Your task to perform on an android device: Empty the shopping cart on target.com. Image 0: 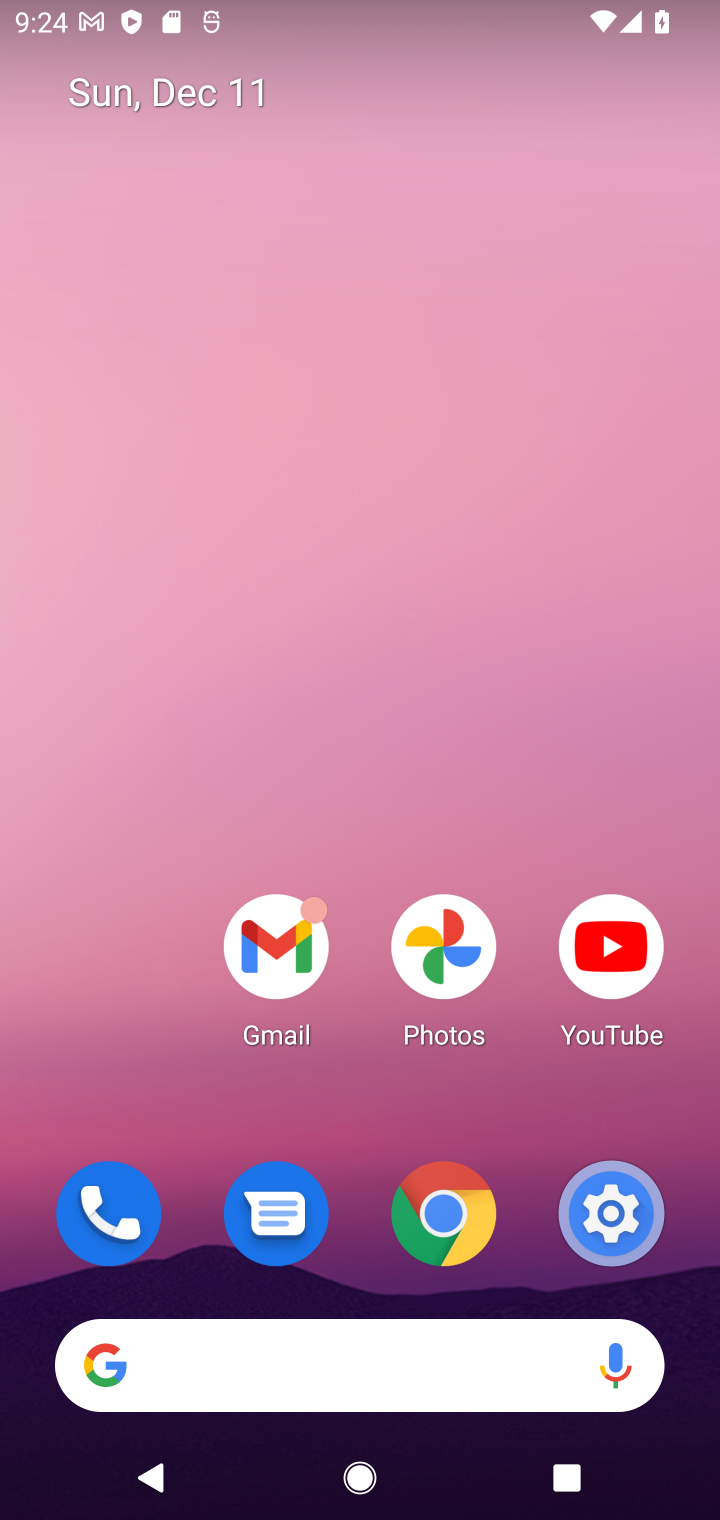
Step 0: click (462, 1347)
Your task to perform on an android device: Empty the shopping cart on target.com. Image 1: 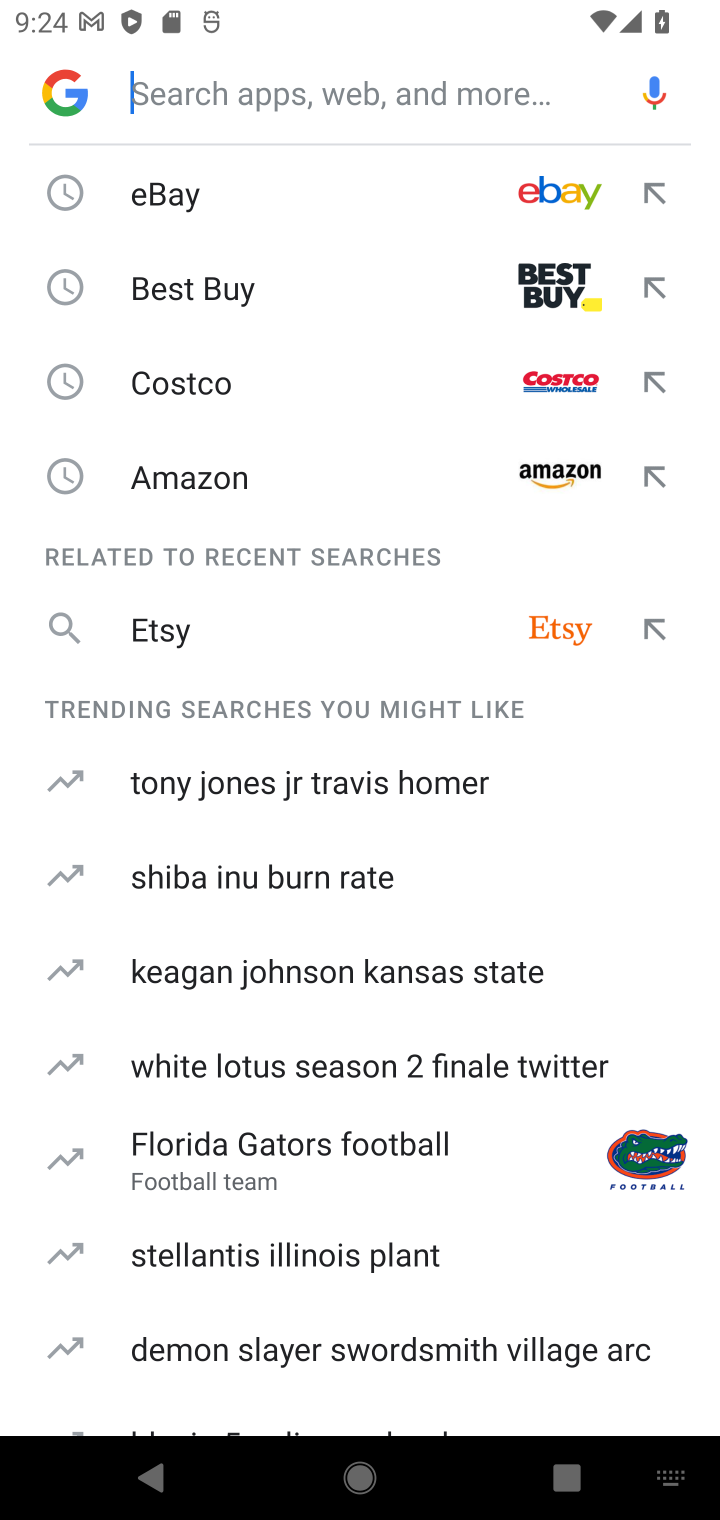
Step 1: type "target\"
Your task to perform on an android device: Empty the shopping cart on target.com. Image 2: 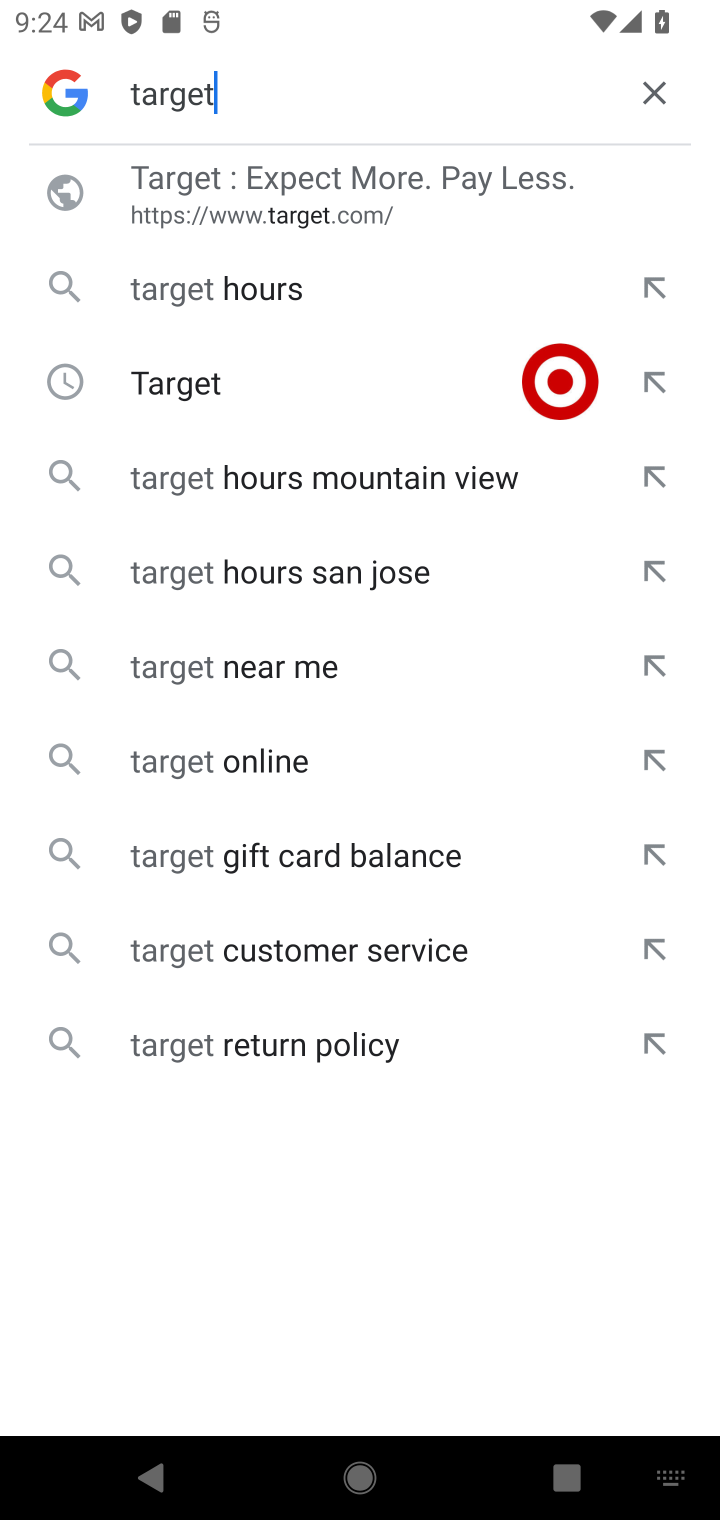
Step 2: click (370, 250)
Your task to perform on an android device: Empty the shopping cart on target.com. Image 3: 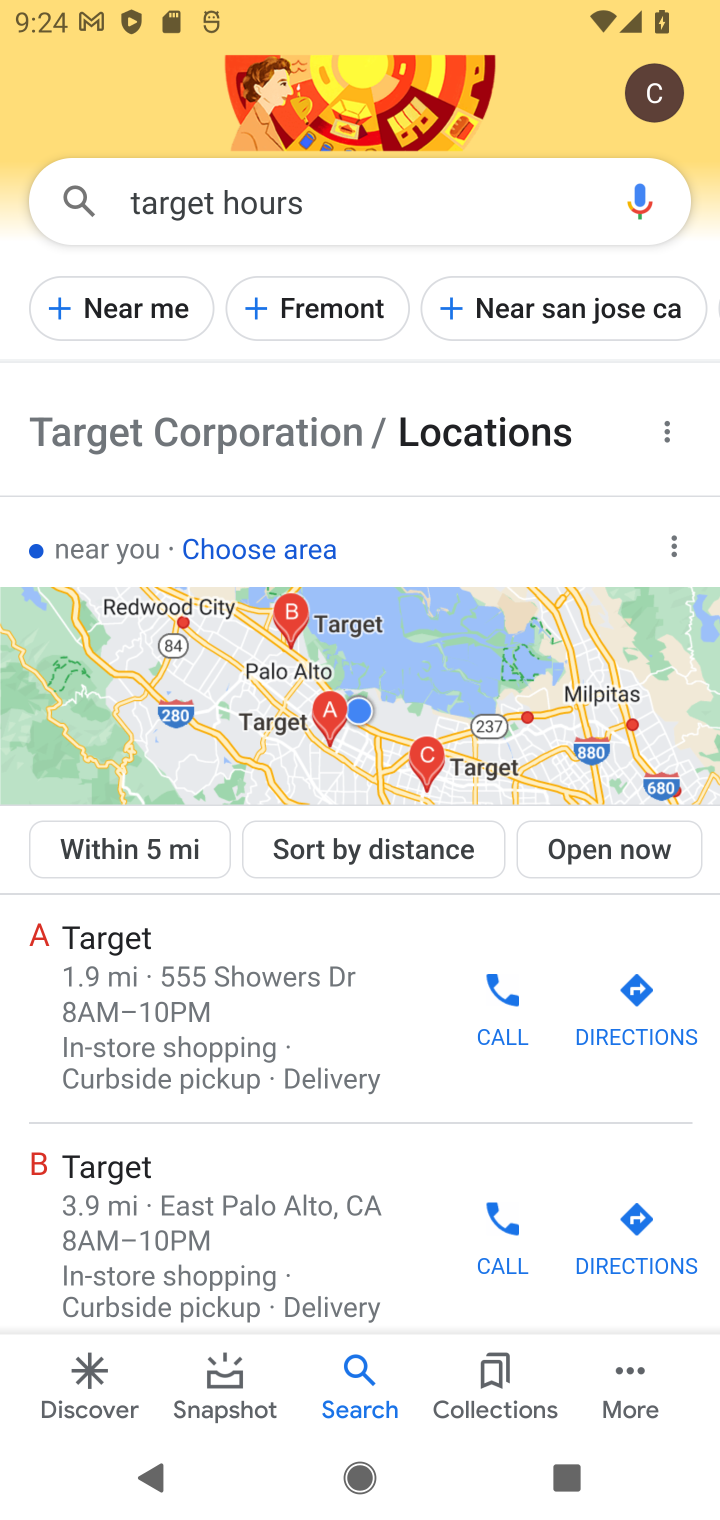
Step 3: drag from (256, 1148) to (295, 429)
Your task to perform on an android device: Empty the shopping cart on target.com. Image 4: 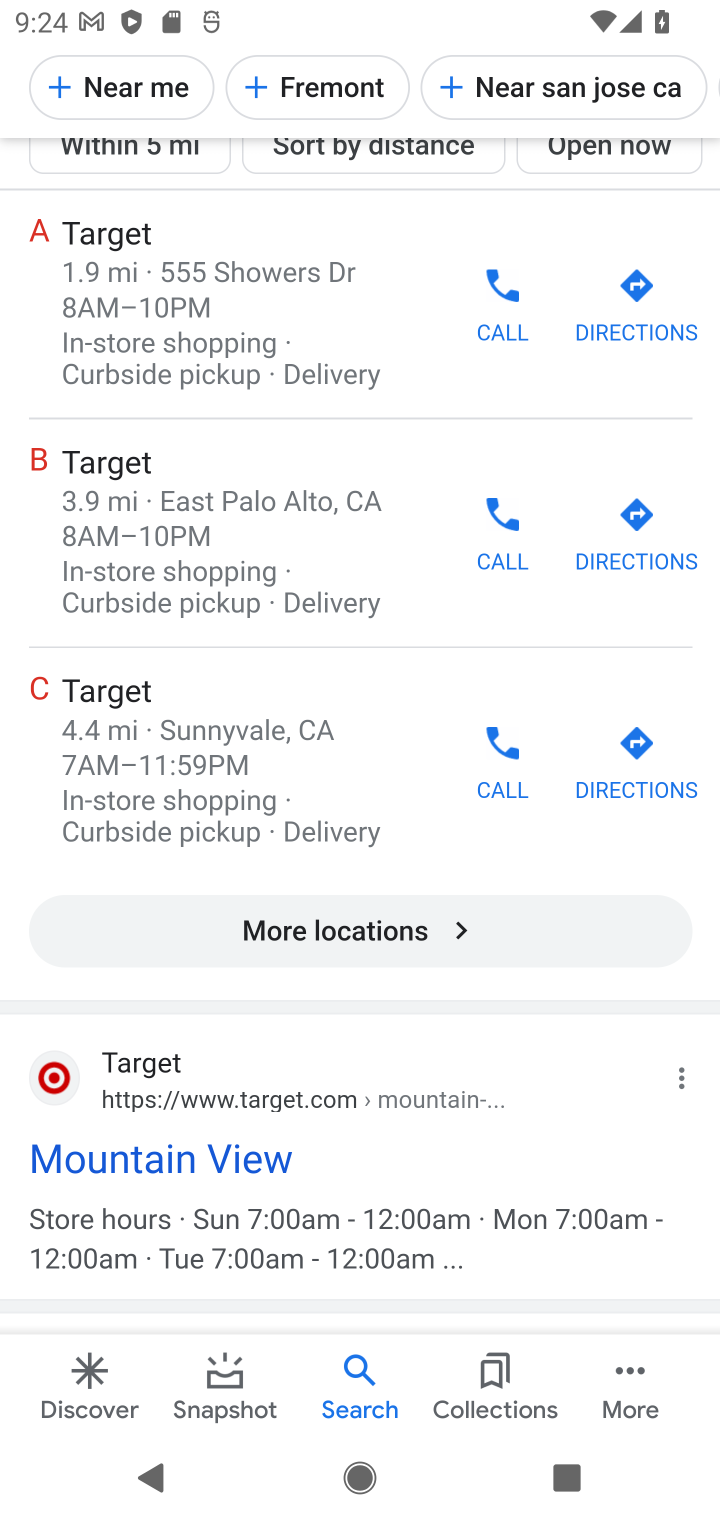
Step 4: click (206, 1135)
Your task to perform on an android device: Empty the shopping cart on target.com. Image 5: 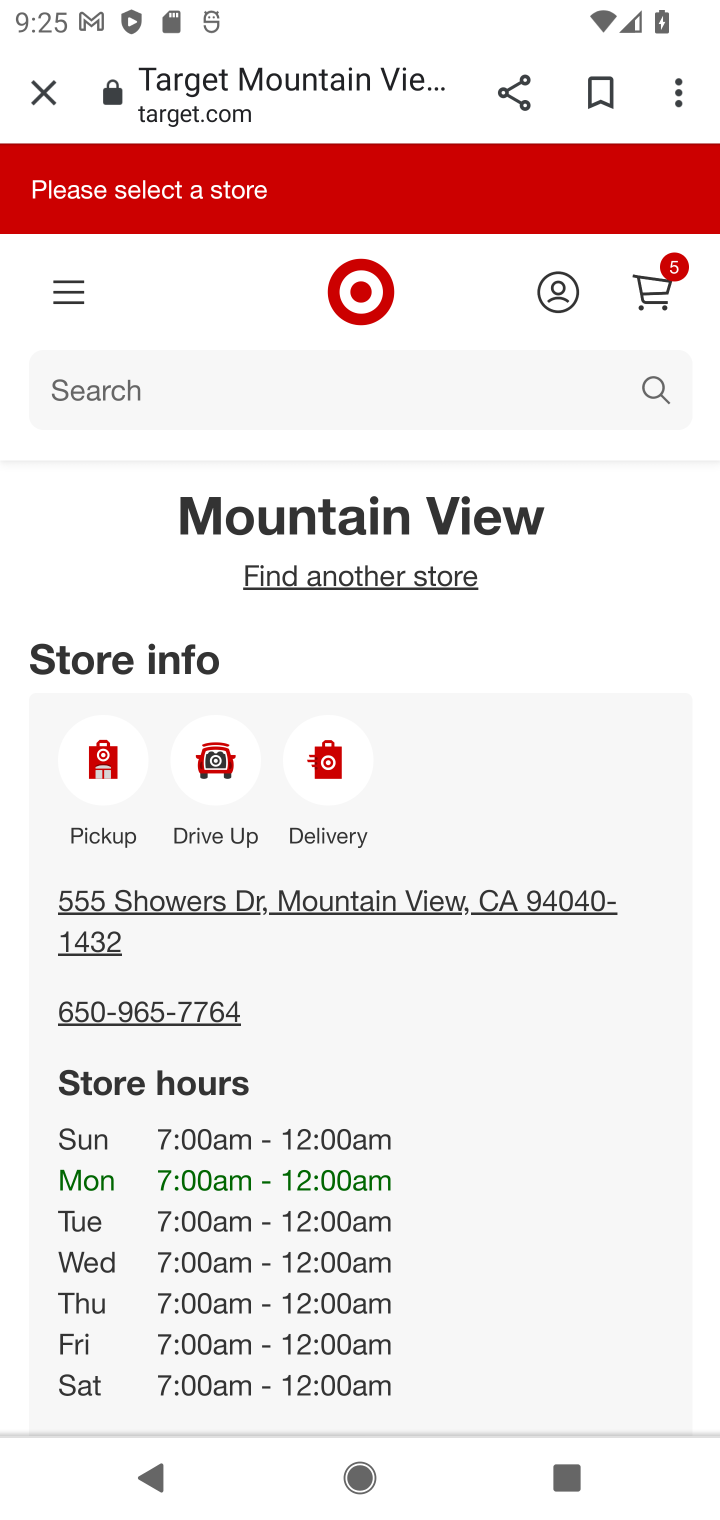
Step 5: click (655, 283)
Your task to perform on an android device: Empty the shopping cart on target.com. Image 6: 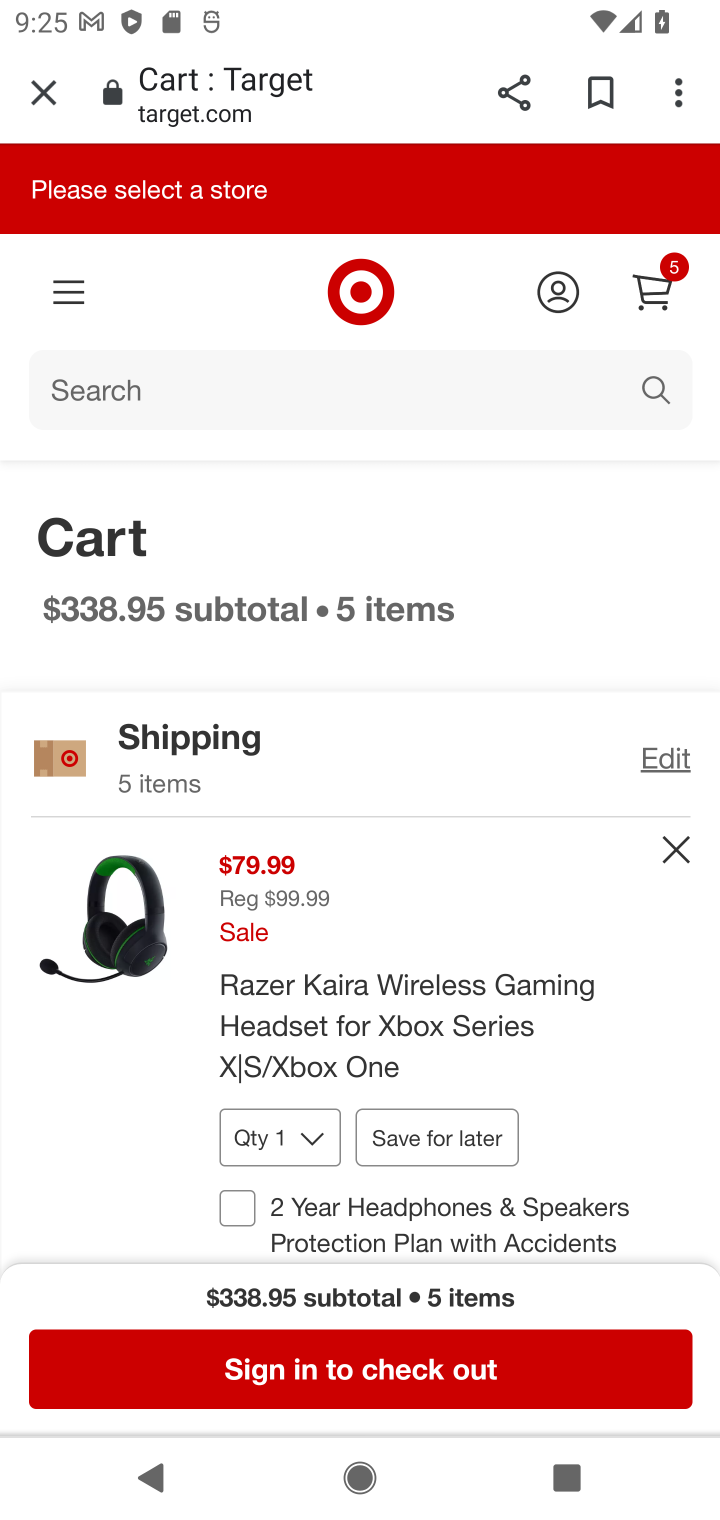
Step 6: click (392, 408)
Your task to perform on an android device: Empty the shopping cart on target.com. Image 7: 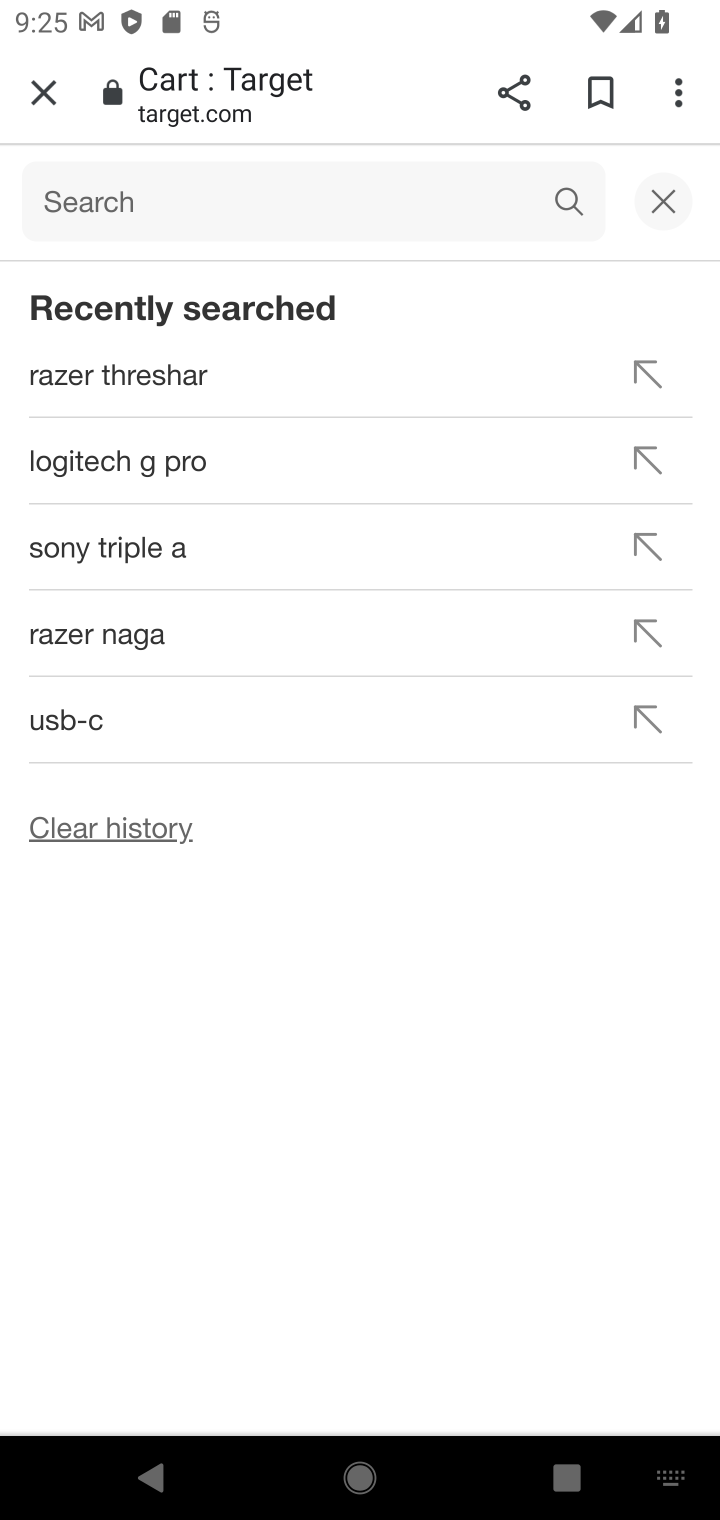
Step 7: click (637, 193)
Your task to perform on an android device: Empty the shopping cart on target.com. Image 8: 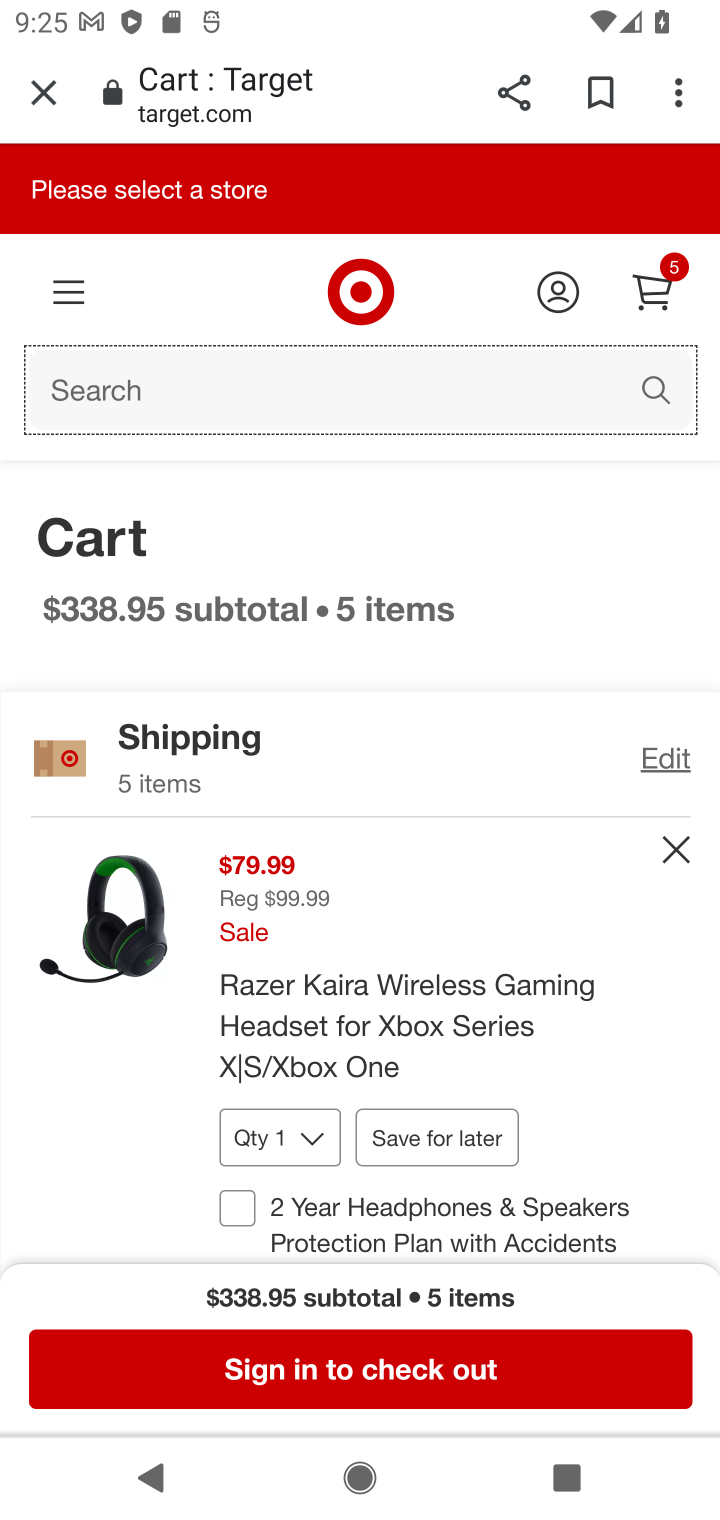
Step 8: click (670, 846)
Your task to perform on an android device: Empty the shopping cart on target.com. Image 9: 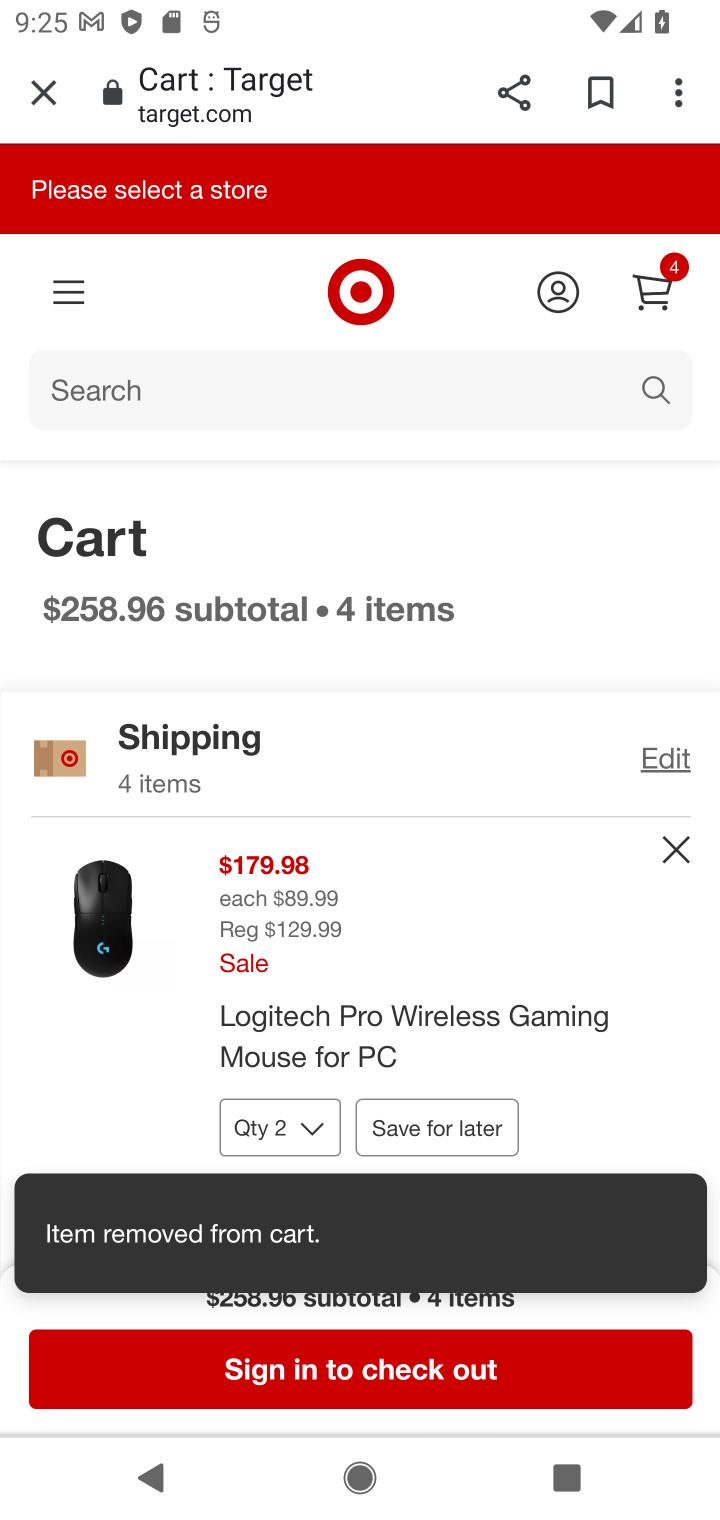
Step 9: click (669, 842)
Your task to perform on an android device: Empty the shopping cart on target.com. Image 10: 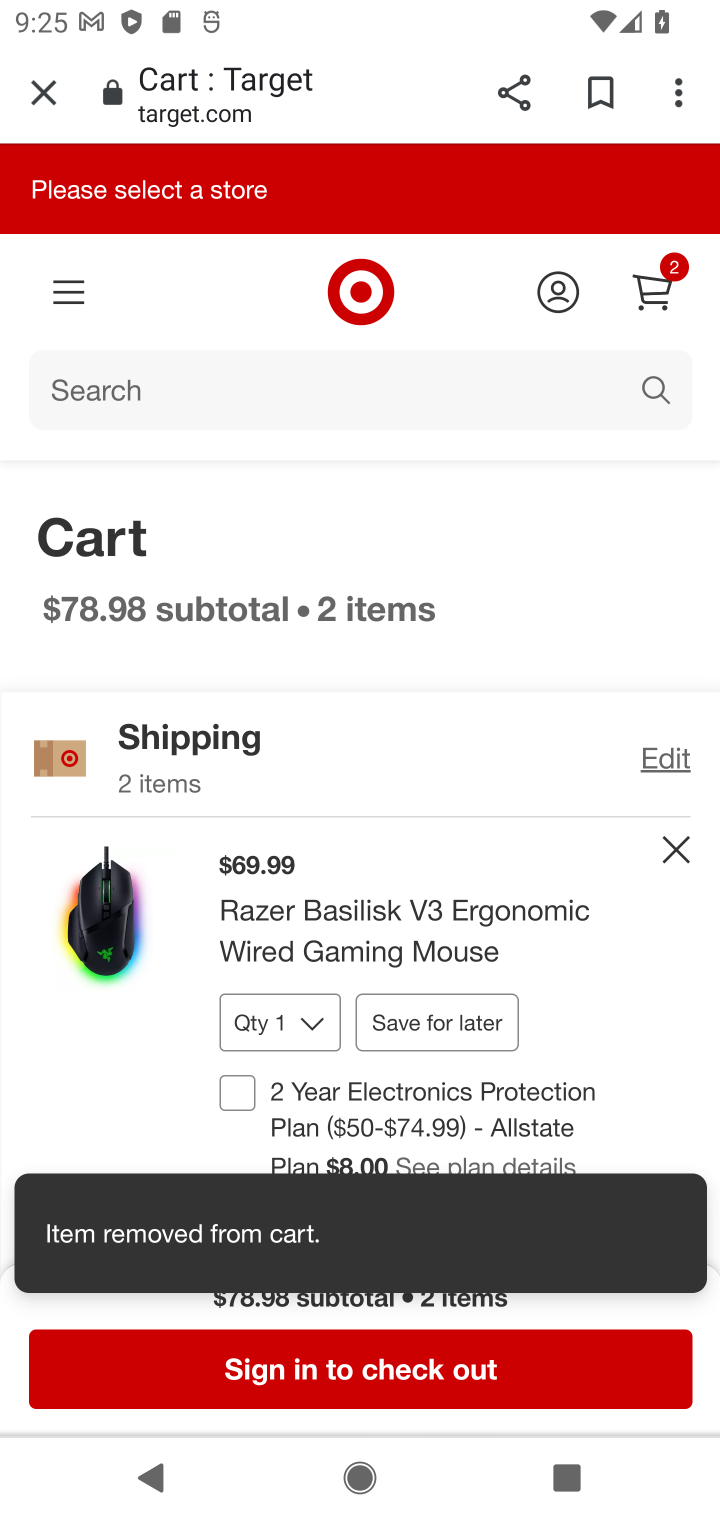
Step 10: click (669, 842)
Your task to perform on an android device: Empty the shopping cart on target.com. Image 11: 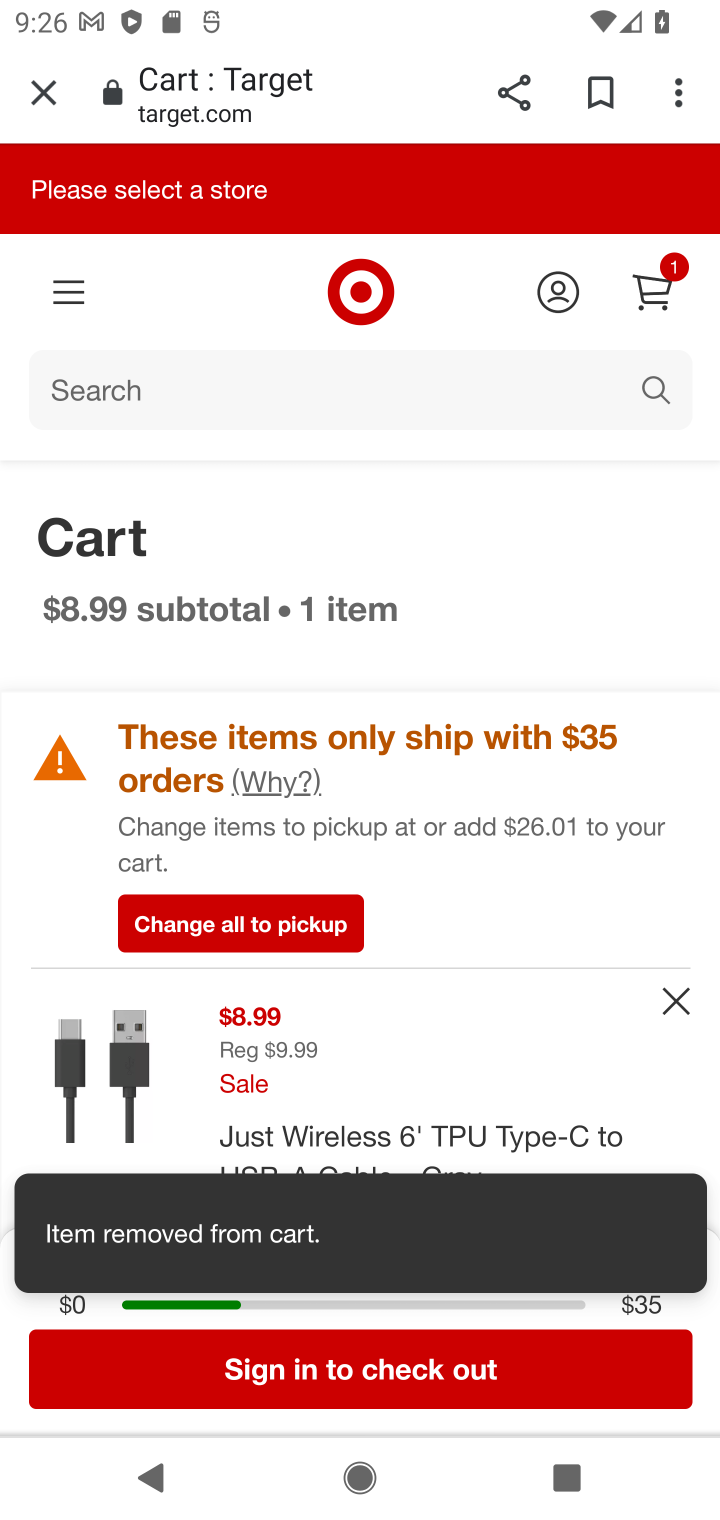
Step 11: click (665, 998)
Your task to perform on an android device: Empty the shopping cart on target.com. Image 12: 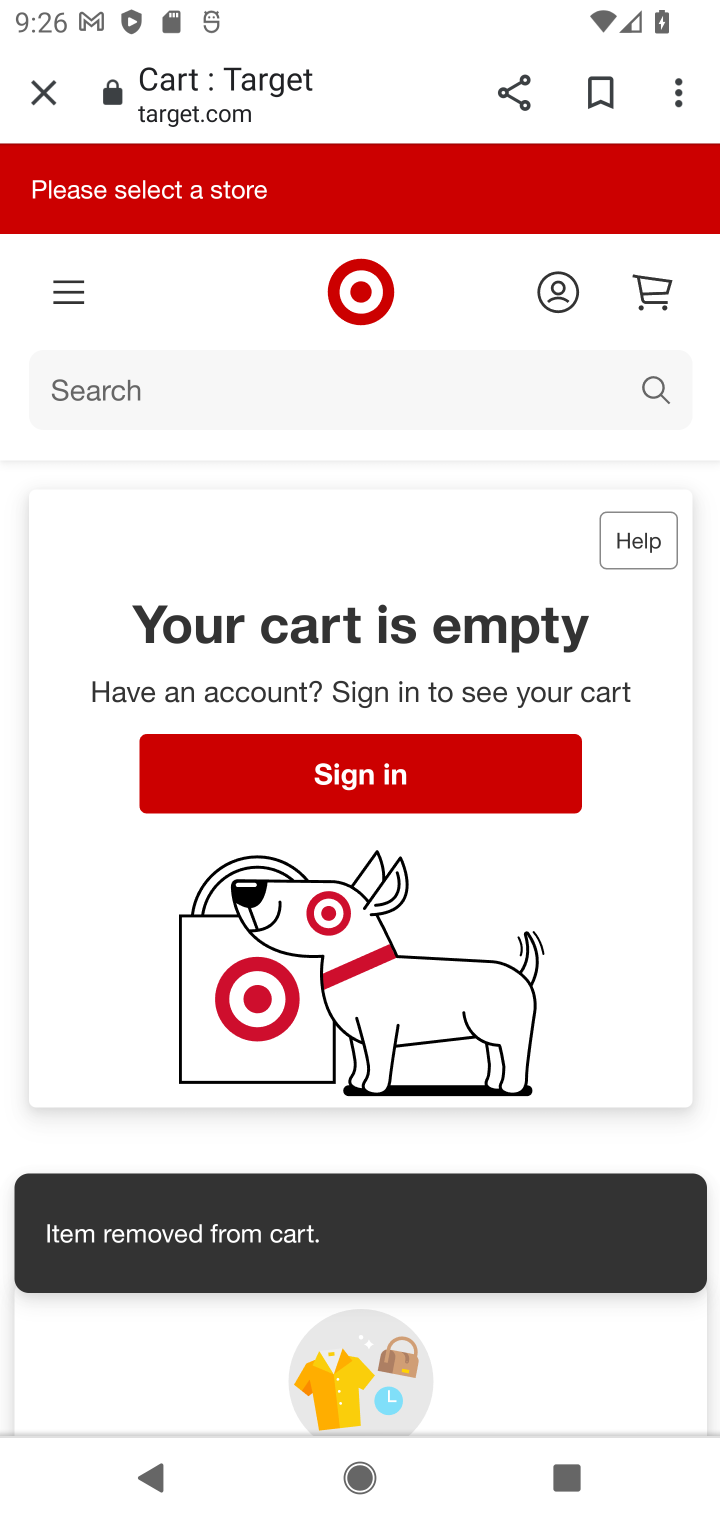
Step 12: task complete